Your task to perform on an android device: Open the web browser Image 0: 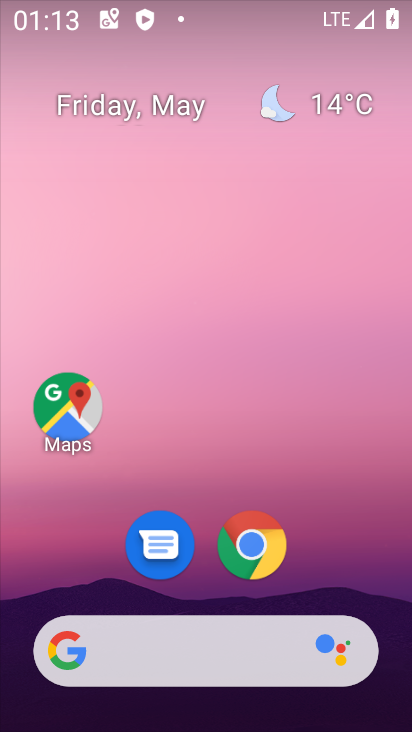
Step 0: drag from (308, 539) to (330, 23)
Your task to perform on an android device: Open the web browser Image 1: 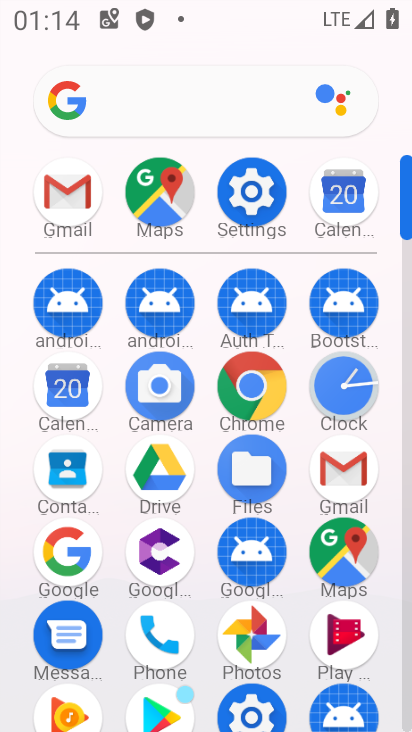
Step 1: click (246, 412)
Your task to perform on an android device: Open the web browser Image 2: 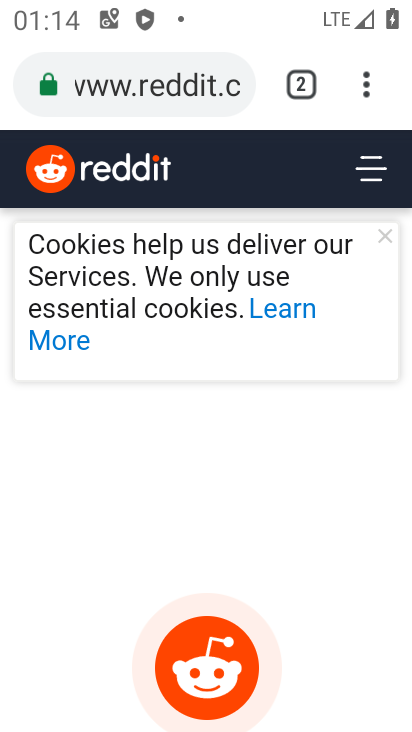
Step 2: task complete